Your task to perform on an android device: What's the weather? Image 0: 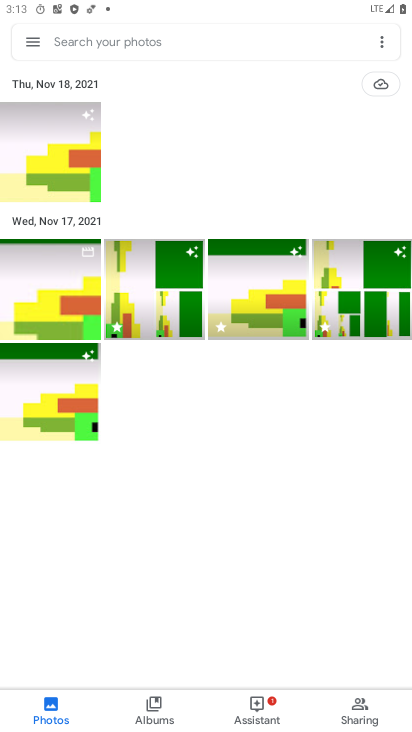
Step 0: press home button
Your task to perform on an android device: What's the weather? Image 1: 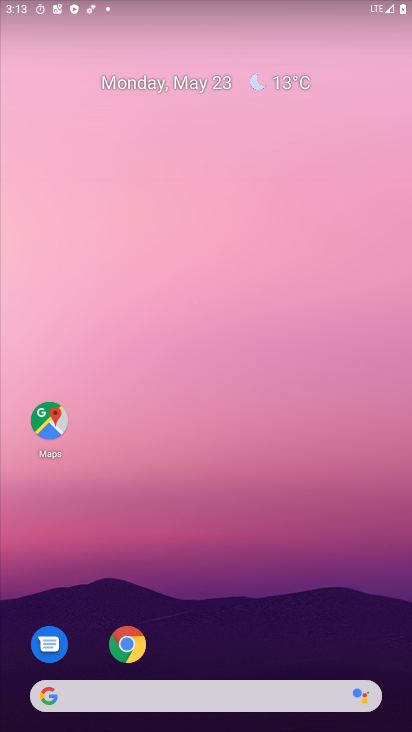
Step 1: click (184, 677)
Your task to perform on an android device: What's the weather? Image 2: 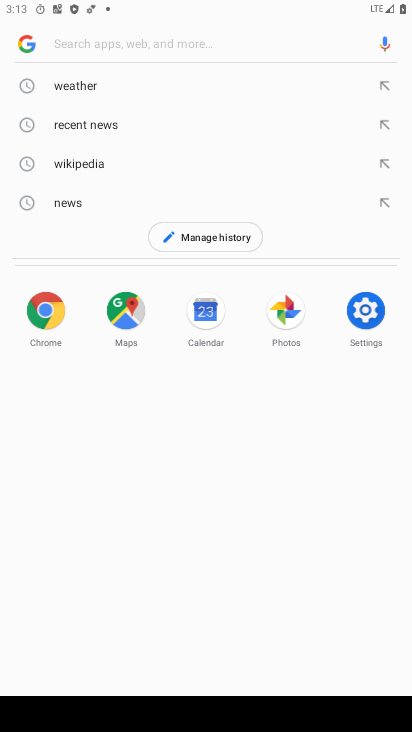
Step 2: click (82, 80)
Your task to perform on an android device: What's the weather? Image 3: 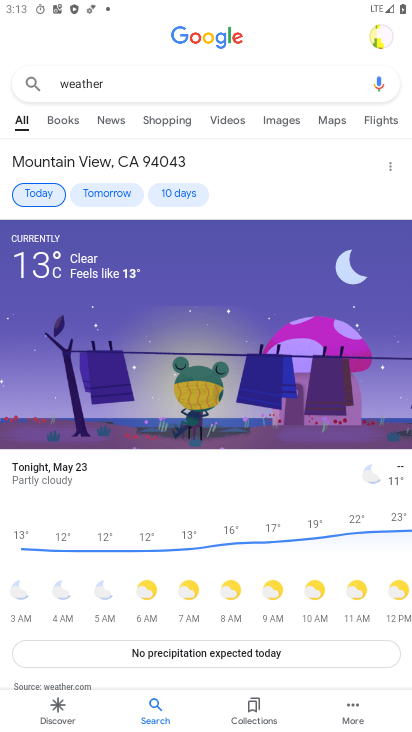
Step 3: task complete